Your task to perform on an android device: toggle wifi Image 0: 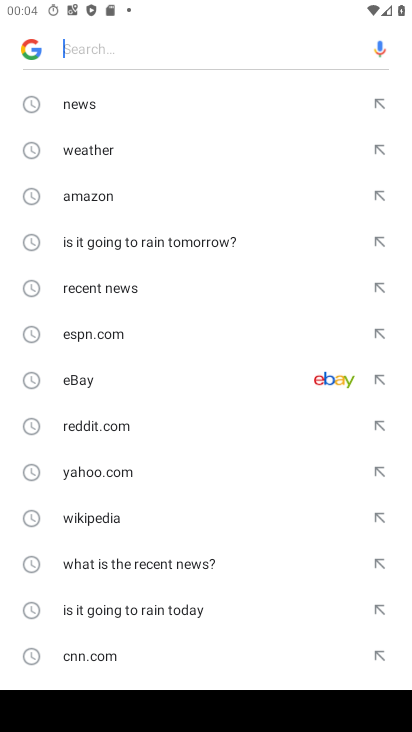
Step 0: press home button
Your task to perform on an android device: toggle wifi Image 1: 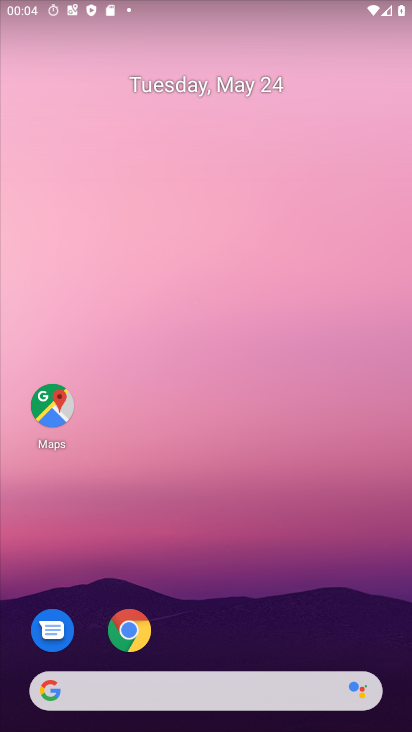
Step 1: drag from (248, 657) to (300, 15)
Your task to perform on an android device: toggle wifi Image 2: 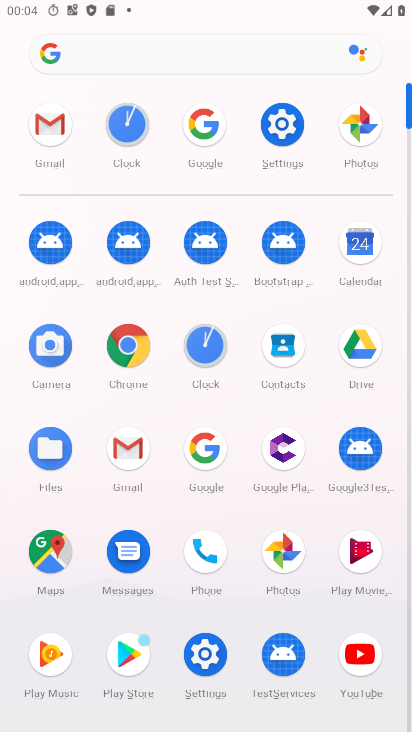
Step 2: click (293, 124)
Your task to perform on an android device: toggle wifi Image 3: 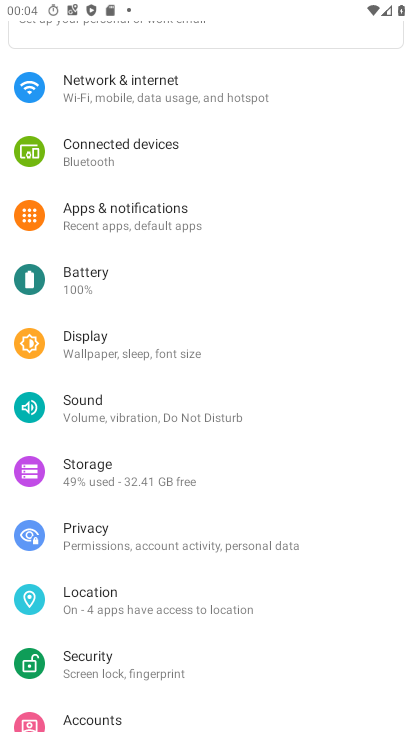
Step 3: click (115, 98)
Your task to perform on an android device: toggle wifi Image 4: 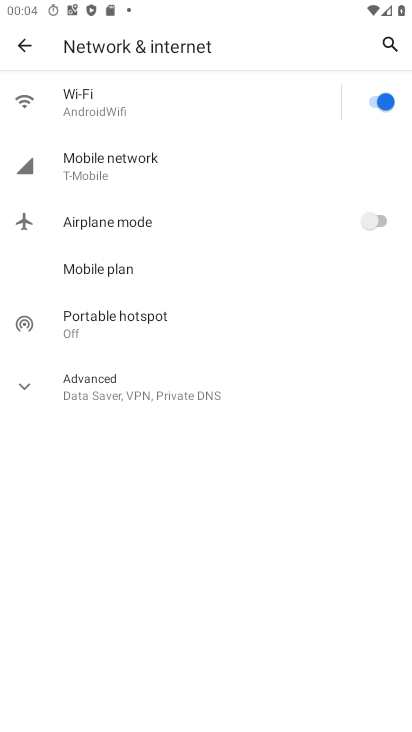
Step 4: click (401, 98)
Your task to perform on an android device: toggle wifi Image 5: 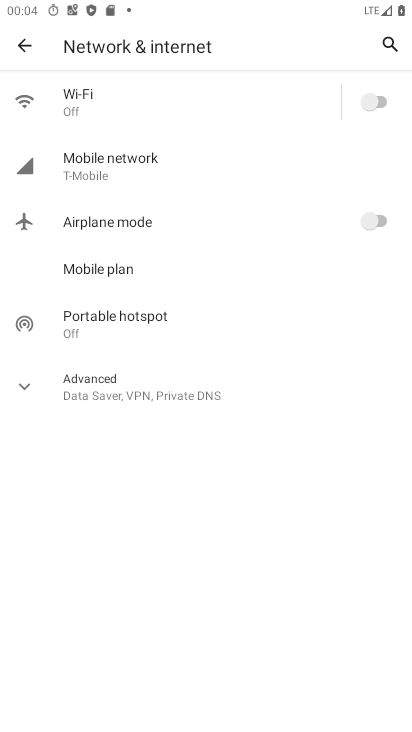
Step 5: task complete